Your task to perform on an android device: Go to network settings Image 0: 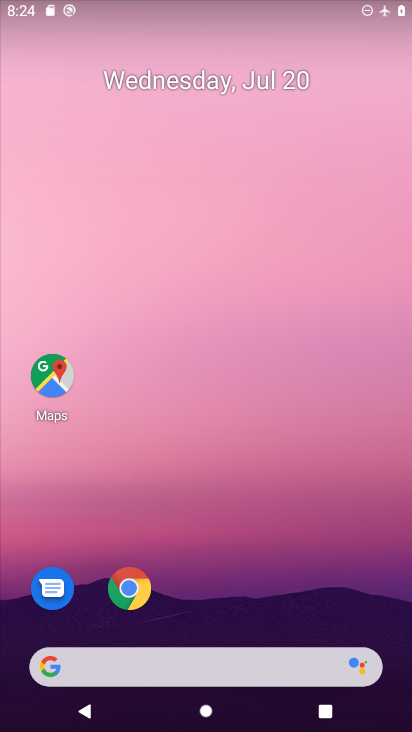
Step 0: drag from (49, 712) to (209, 76)
Your task to perform on an android device: Go to network settings Image 1: 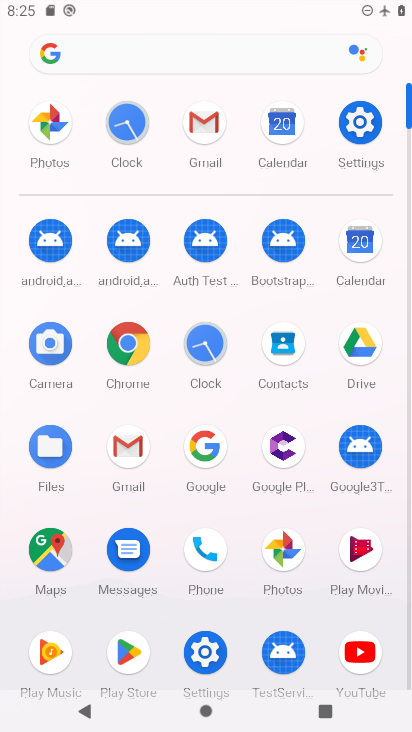
Step 1: click (224, 639)
Your task to perform on an android device: Go to network settings Image 2: 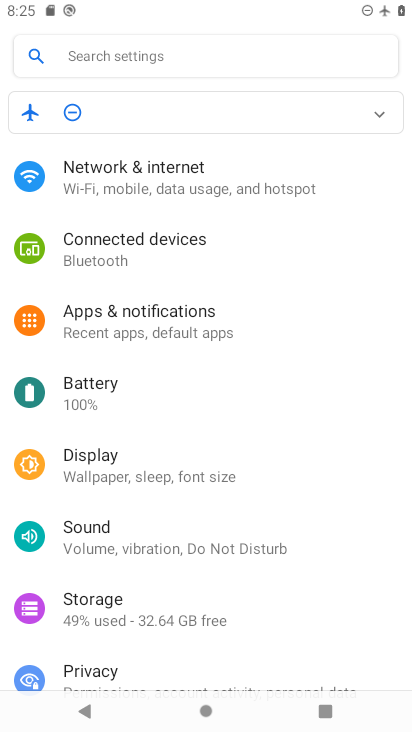
Step 2: click (112, 106)
Your task to perform on an android device: Go to network settings Image 3: 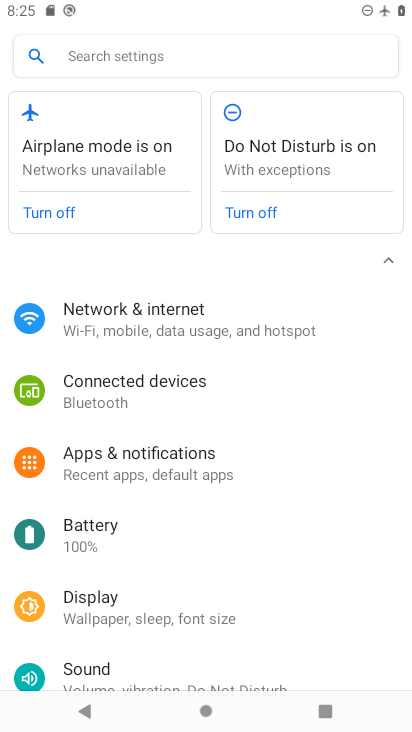
Step 3: click (126, 172)
Your task to perform on an android device: Go to network settings Image 4: 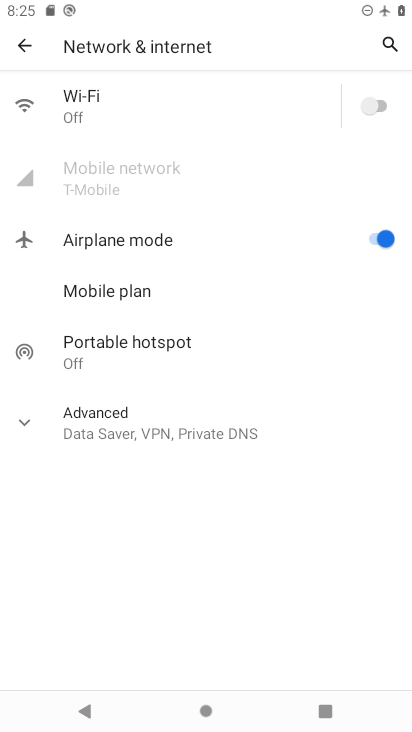
Step 4: task complete